Your task to perform on an android device: Go to wifi settings Image 0: 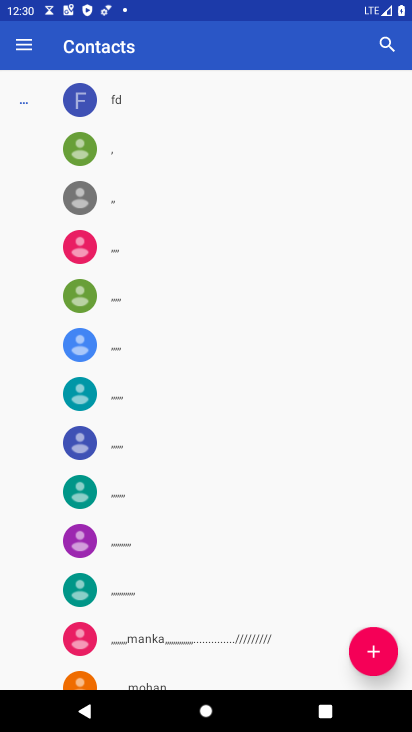
Step 0: press back button
Your task to perform on an android device: Go to wifi settings Image 1: 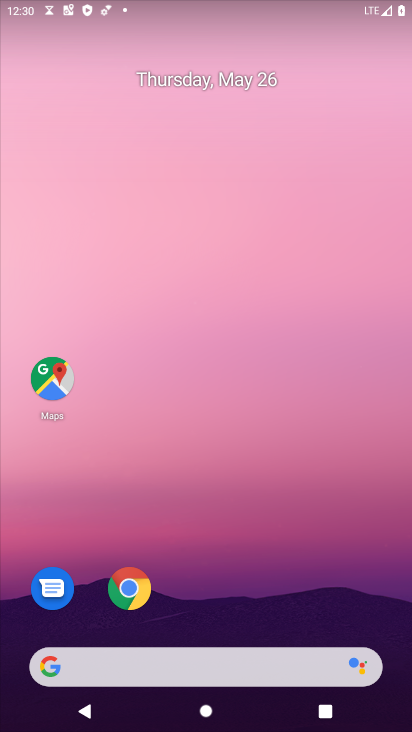
Step 1: drag from (213, 510) to (206, 2)
Your task to perform on an android device: Go to wifi settings Image 2: 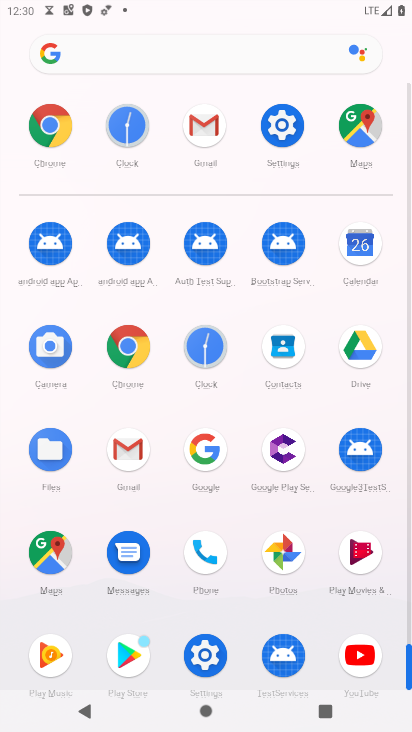
Step 2: click (208, 653)
Your task to perform on an android device: Go to wifi settings Image 3: 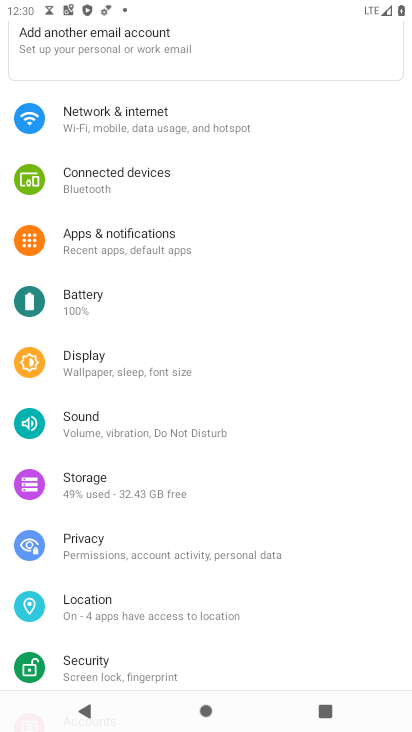
Step 3: drag from (258, 198) to (232, 552)
Your task to perform on an android device: Go to wifi settings Image 4: 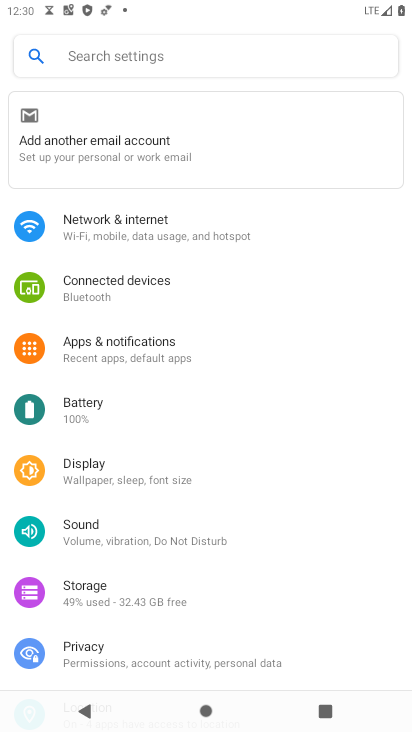
Step 4: click (159, 218)
Your task to perform on an android device: Go to wifi settings Image 5: 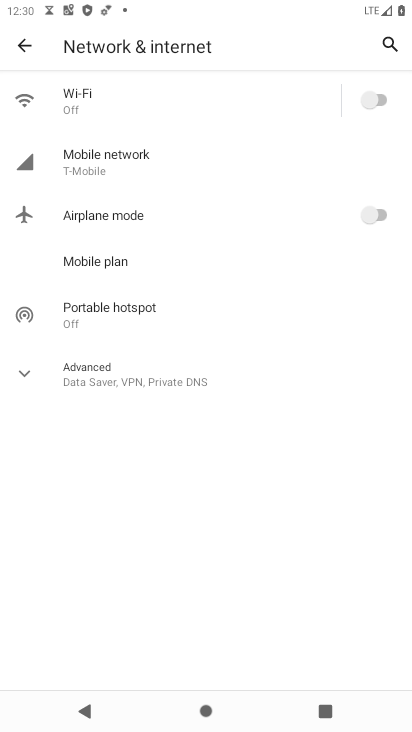
Step 5: click (146, 80)
Your task to perform on an android device: Go to wifi settings Image 6: 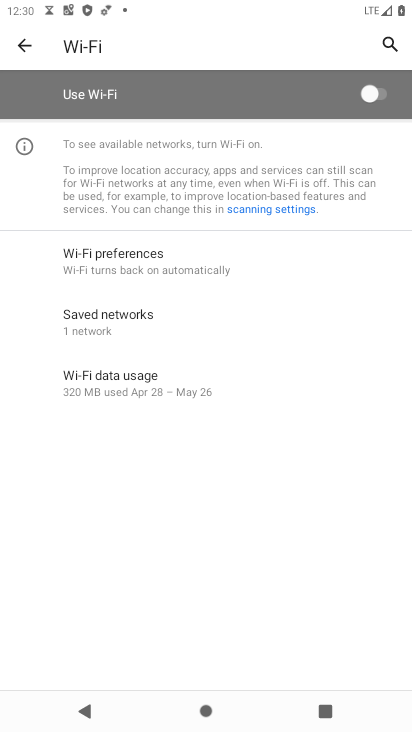
Step 6: task complete